Your task to perform on an android device: toggle translation in the chrome app Image 0: 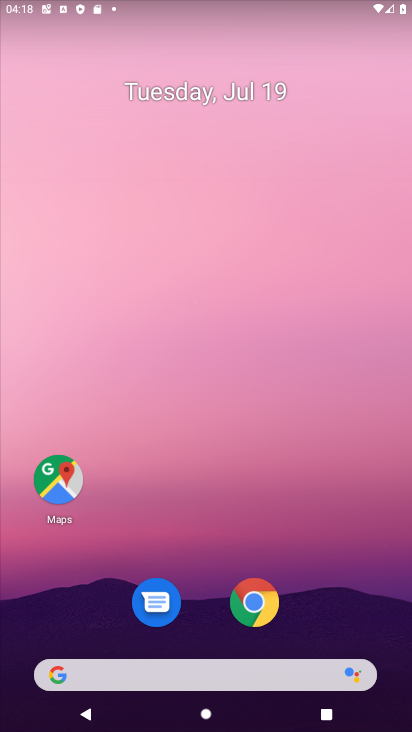
Step 0: click (241, 607)
Your task to perform on an android device: toggle translation in the chrome app Image 1: 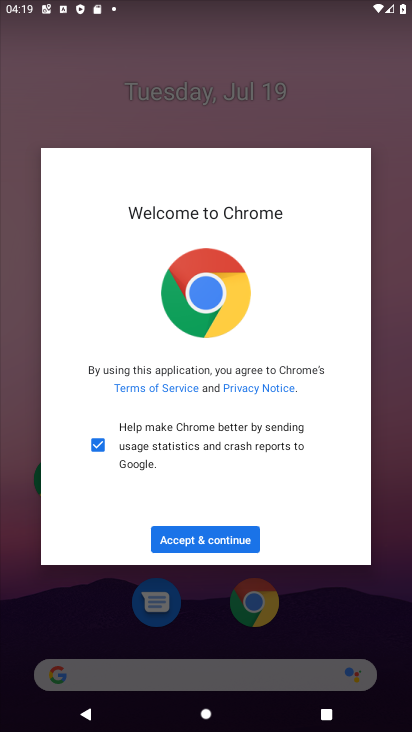
Step 1: click (183, 547)
Your task to perform on an android device: toggle translation in the chrome app Image 2: 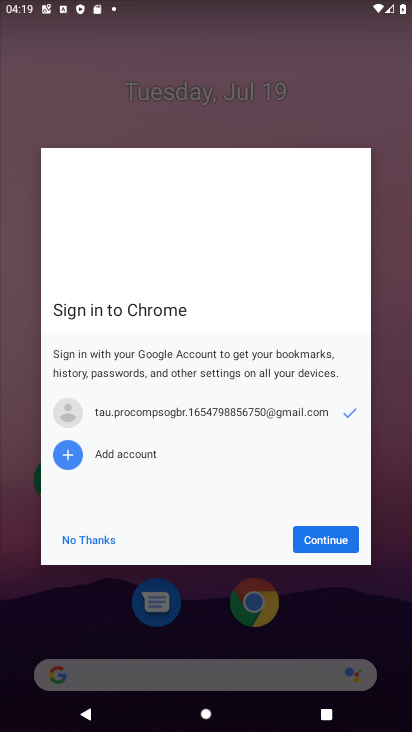
Step 2: click (299, 548)
Your task to perform on an android device: toggle translation in the chrome app Image 3: 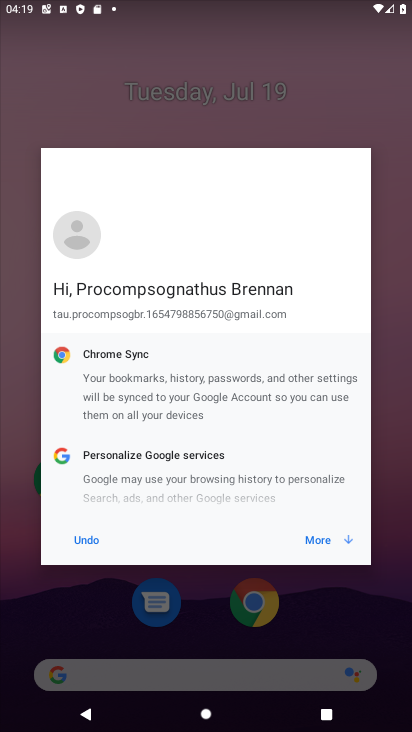
Step 3: click (307, 547)
Your task to perform on an android device: toggle translation in the chrome app Image 4: 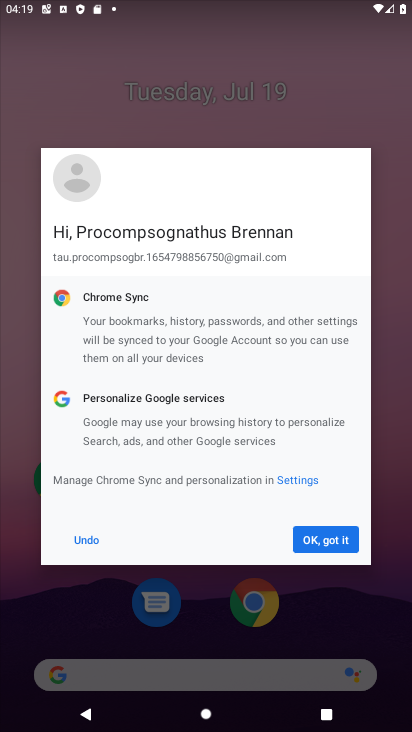
Step 4: click (335, 540)
Your task to perform on an android device: toggle translation in the chrome app Image 5: 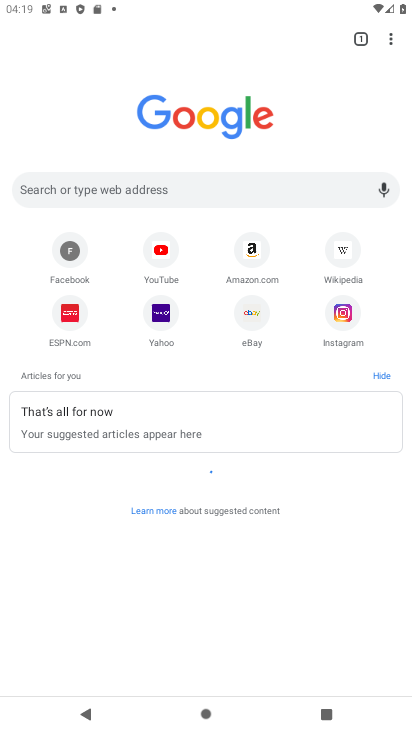
Step 5: click (396, 42)
Your task to perform on an android device: toggle translation in the chrome app Image 6: 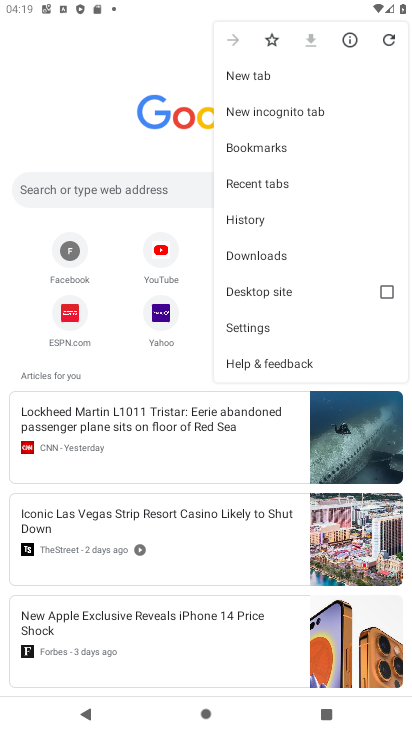
Step 6: click (277, 320)
Your task to perform on an android device: toggle translation in the chrome app Image 7: 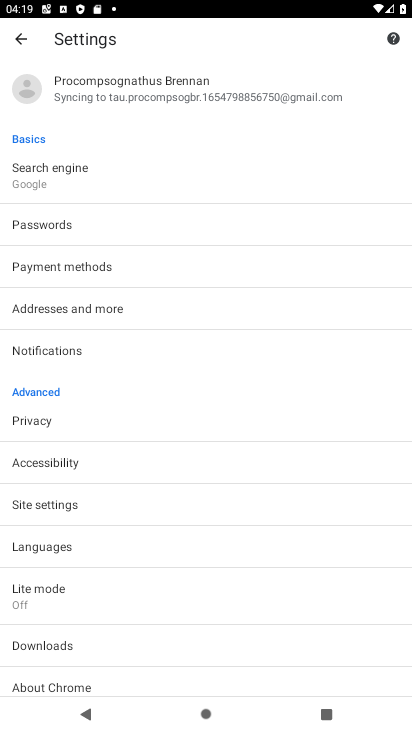
Step 7: click (67, 558)
Your task to perform on an android device: toggle translation in the chrome app Image 8: 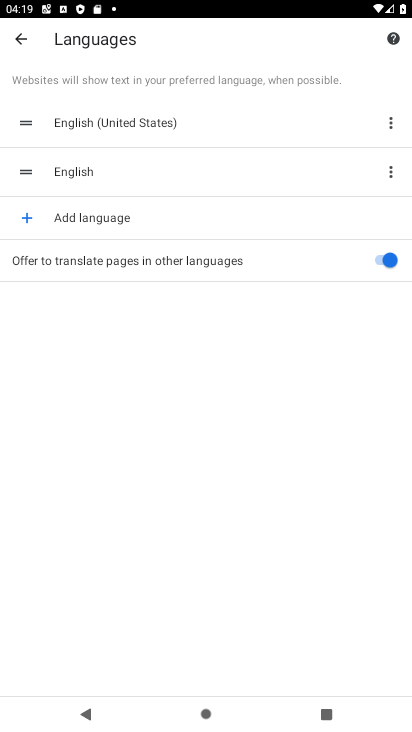
Step 8: click (383, 261)
Your task to perform on an android device: toggle translation in the chrome app Image 9: 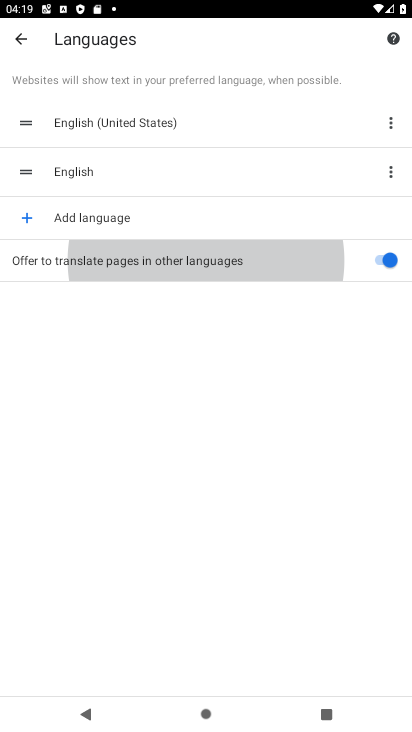
Step 9: click (383, 261)
Your task to perform on an android device: toggle translation in the chrome app Image 10: 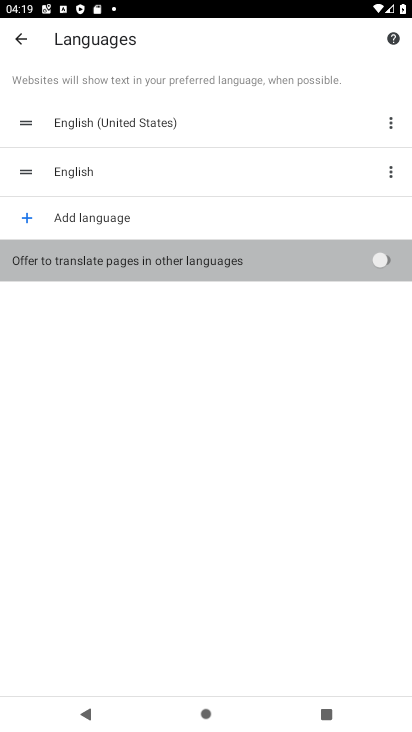
Step 10: click (383, 261)
Your task to perform on an android device: toggle translation in the chrome app Image 11: 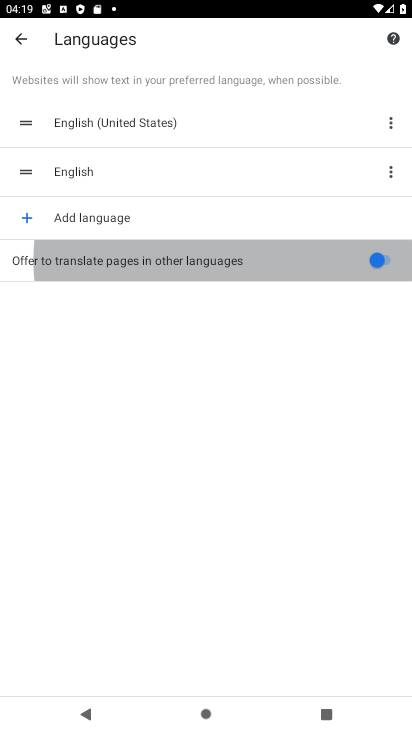
Step 11: click (383, 261)
Your task to perform on an android device: toggle translation in the chrome app Image 12: 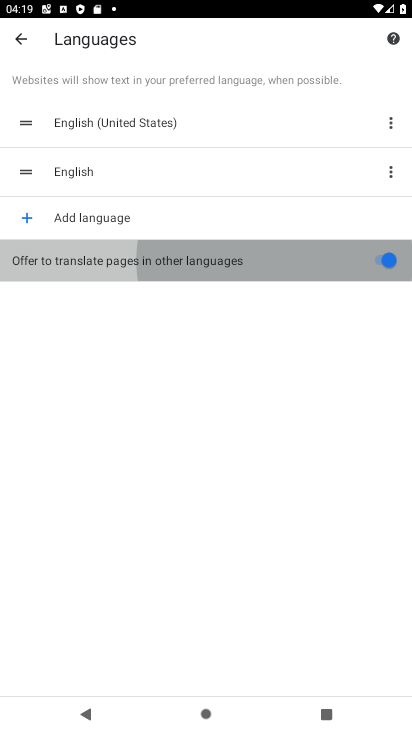
Step 12: click (383, 261)
Your task to perform on an android device: toggle translation in the chrome app Image 13: 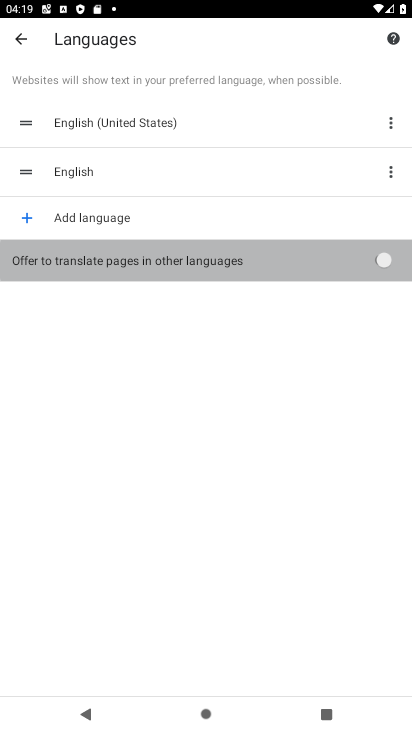
Step 13: click (383, 261)
Your task to perform on an android device: toggle translation in the chrome app Image 14: 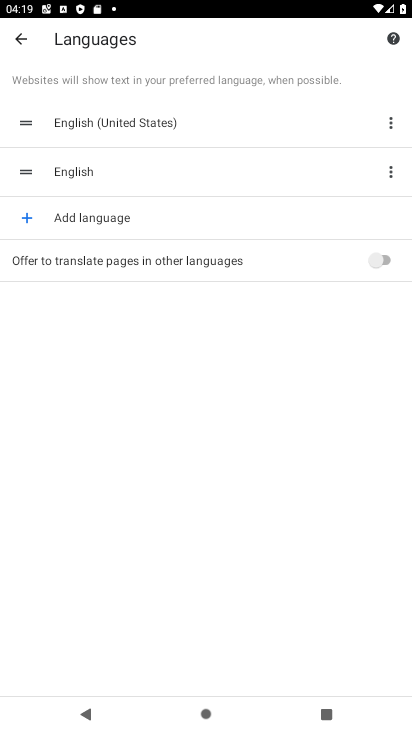
Step 14: task complete